Your task to perform on an android device: Open network settings Image 0: 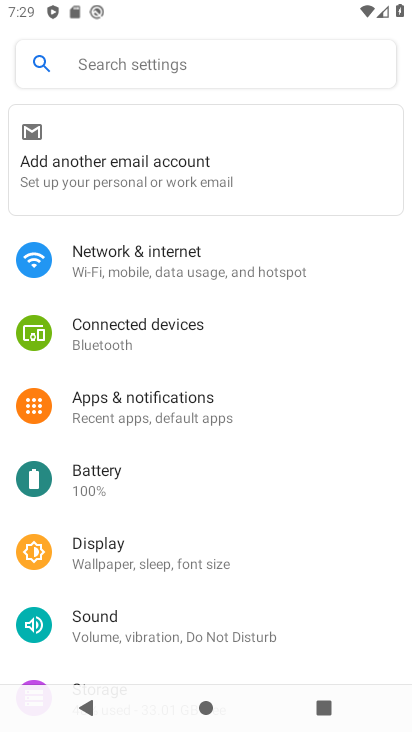
Step 0: press home button
Your task to perform on an android device: Open network settings Image 1: 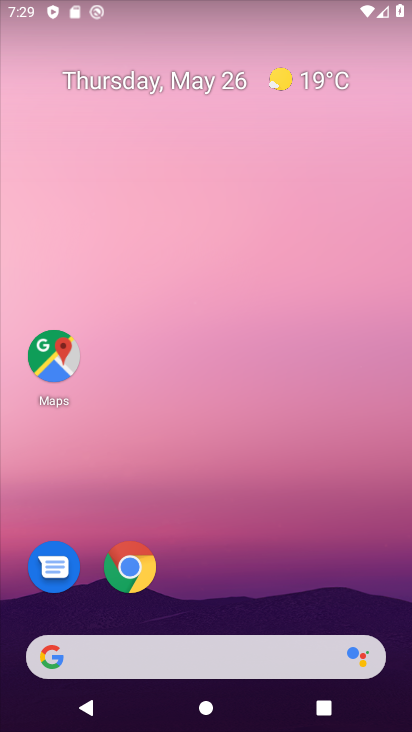
Step 1: drag from (237, 567) to (233, 59)
Your task to perform on an android device: Open network settings Image 2: 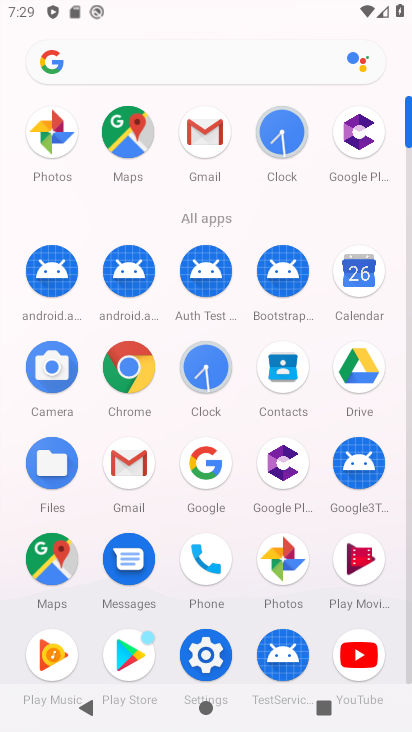
Step 2: click (218, 640)
Your task to perform on an android device: Open network settings Image 3: 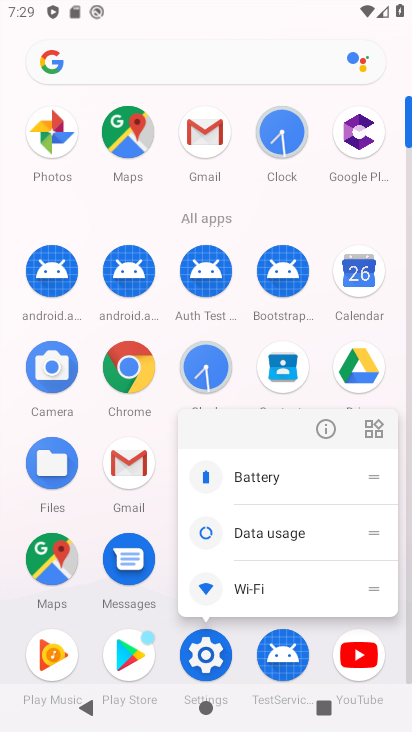
Step 3: click (205, 647)
Your task to perform on an android device: Open network settings Image 4: 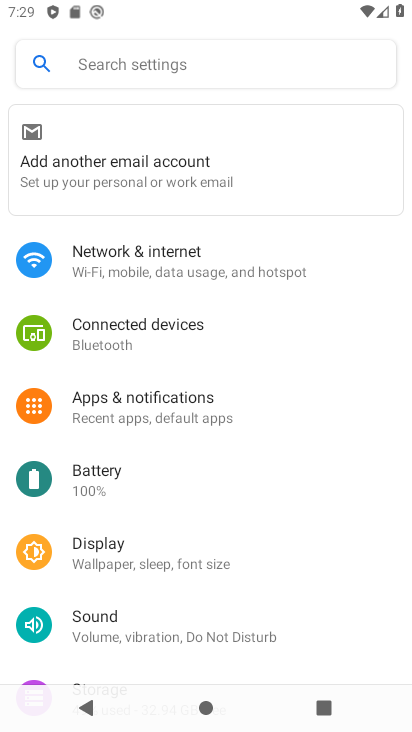
Step 4: click (184, 257)
Your task to perform on an android device: Open network settings Image 5: 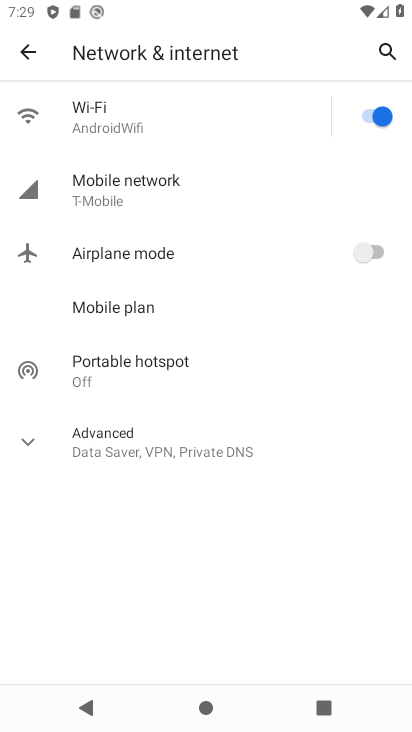
Step 5: task complete